Your task to perform on an android device: Open the calendar app, open the side menu, and click the "Day" option Image 0: 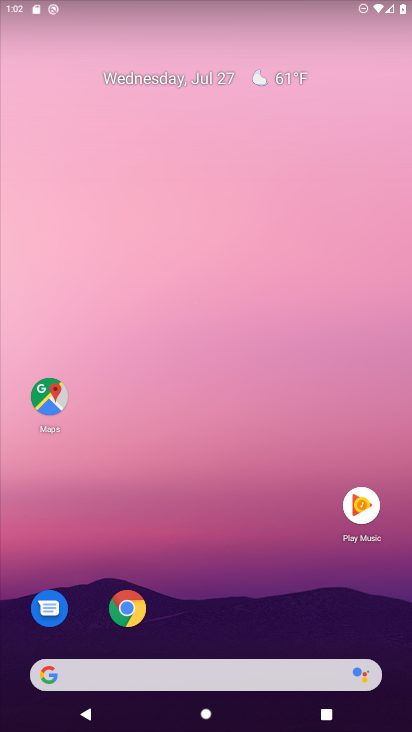
Step 0: press home button
Your task to perform on an android device: Open the calendar app, open the side menu, and click the "Day" option Image 1: 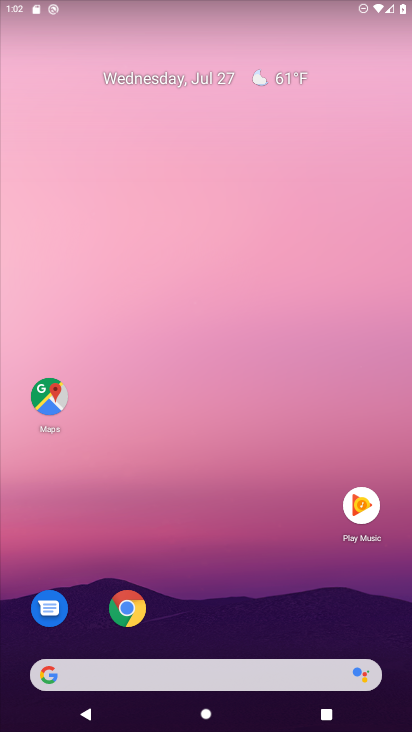
Step 1: drag from (293, 611) to (312, 144)
Your task to perform on an android device: Open the calendar app, open the side menu, and click the "Day" option Image 2: 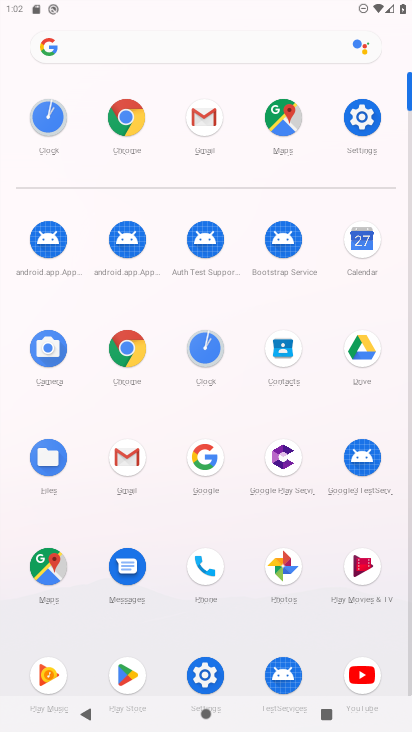
Step 2: click (366, 240)
Your task to perform on an android device: Open the calendar app, open the side menu, and click the "Day" option Image 3: 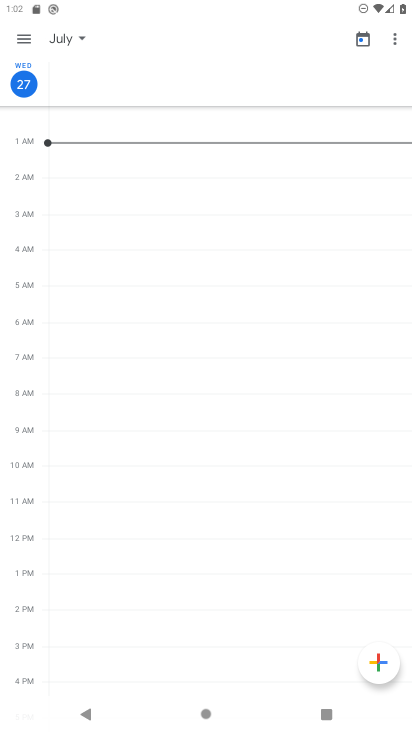
Step 3: click (22, 37)
Your task to perform on an android device: Open the calendar app, open the side menu, and click the "Day" option Image 4: 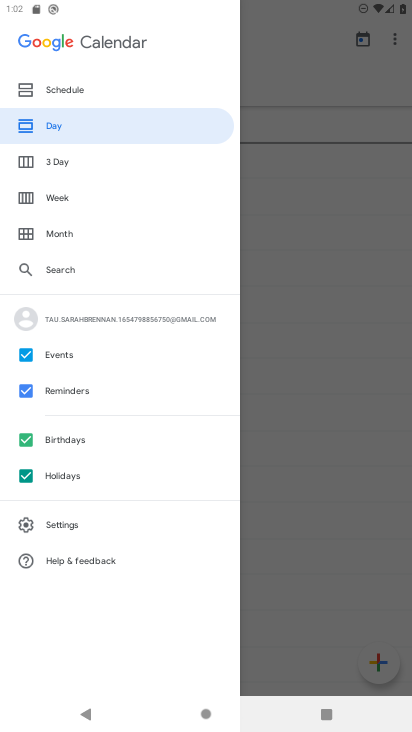
Step 4: task complete